Your task to perform on an android device: Go to Maps Image 0: 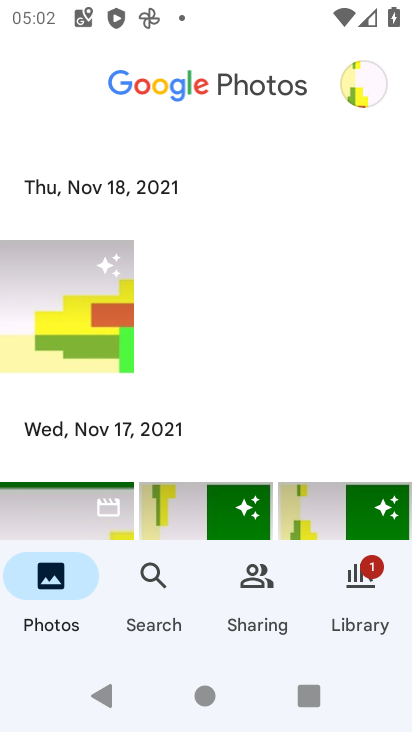
Step 0: press home button
Your task to perform on an android device: Go to Maps Image 1: 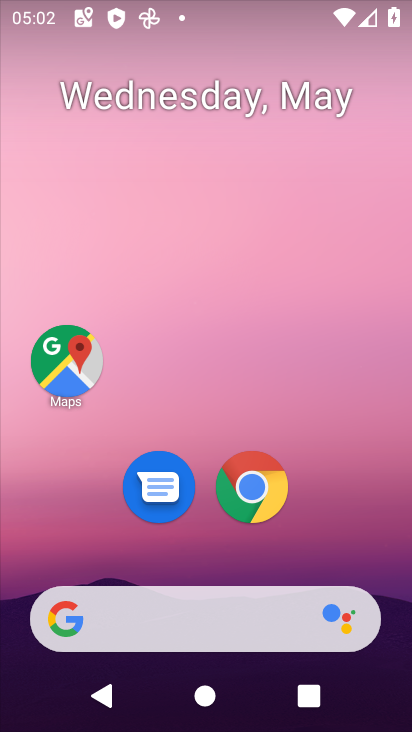
Step 1: click (43, 370)
Your task to perform on an android device: Go to Maps Image 2: 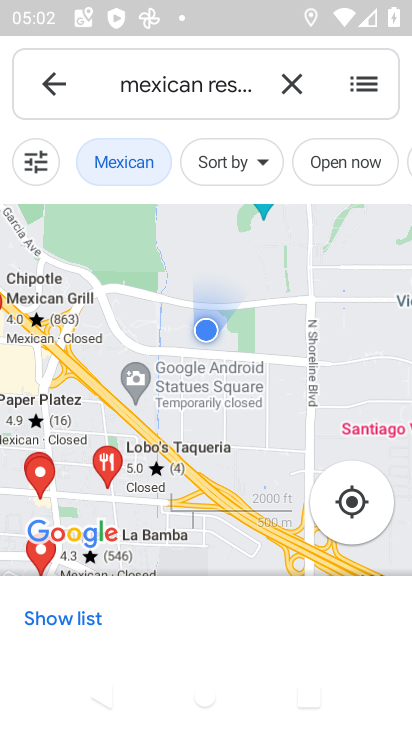
Step 2: task complete